Your task to perform on an android device: Show me popular games on the Play Store Image 0: 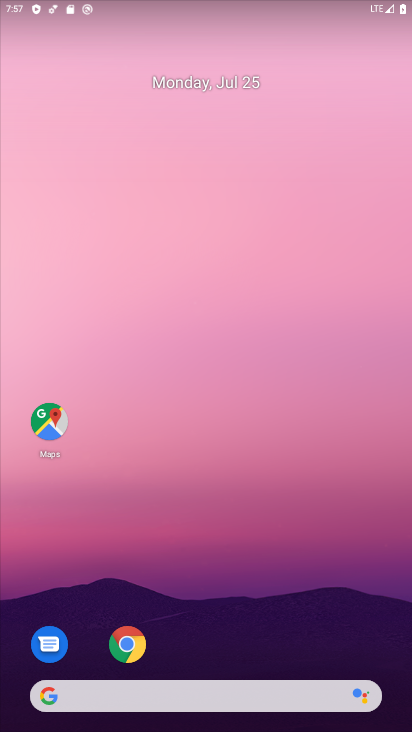
Step 0: drag from (160, 547) to (85, 238)
Your task to perform on an android device: Show me popular games on the Play Store Image 1: 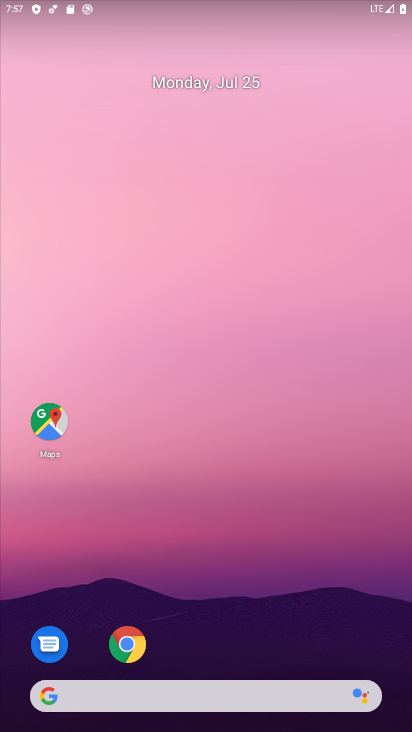
Step 1: drag from (193, 628) to (176, 0)
Your task to perform on an android device: Show me popular games on the Play Store Image 2: 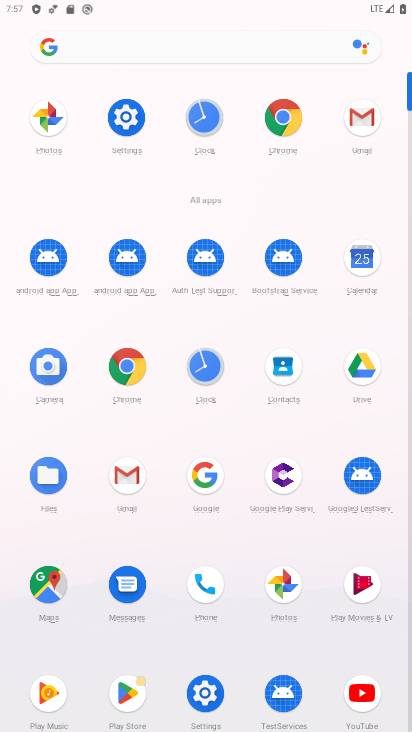
Step 2: click (127, 694)
Your task to perform on an android device: Show me popular games on the Play Store Image 3: 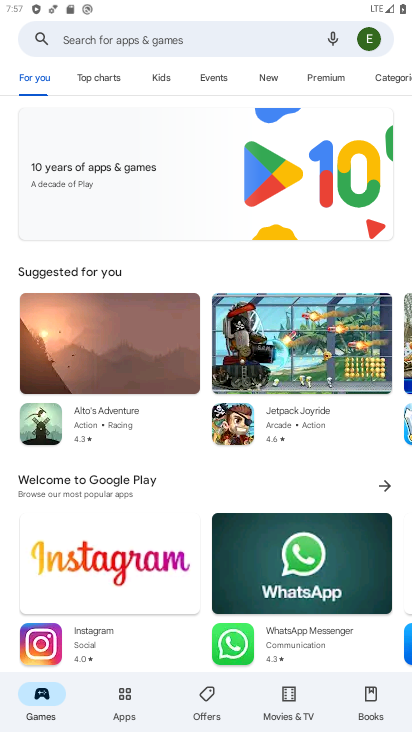
Step 3: task complete